Your task to perform on an android device: Do I have any events today? Image 0: 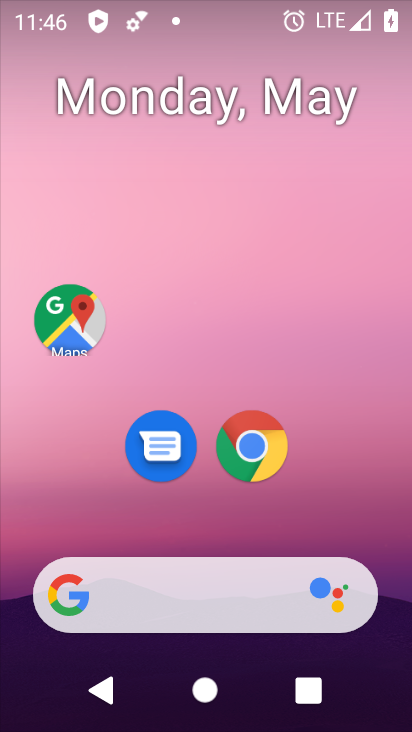
Step 0: drag from (337, 510) to (278, 59)
Your task to perform on an android device: Do I have any events today? Image 1: 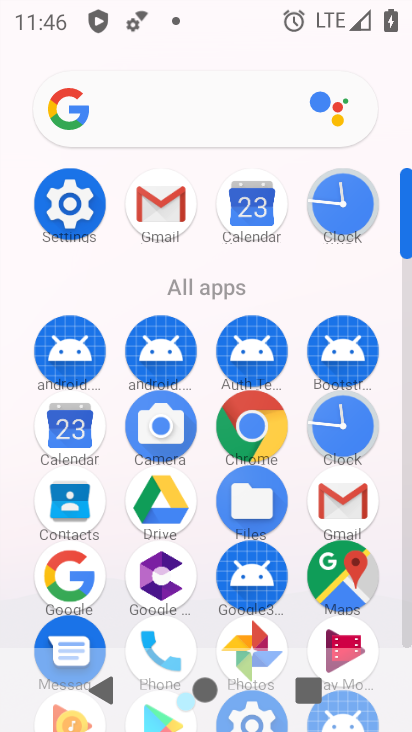
Step 1: click (75, 414)
Your task to perform on an android device: Do I have any events today? Image 2: 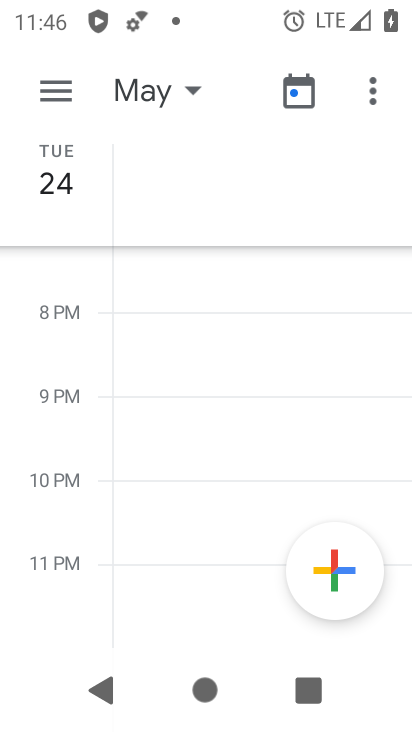
Step 2: click (178, 92)
Your task to perform on an android device: Do I have any events today? Image 3: 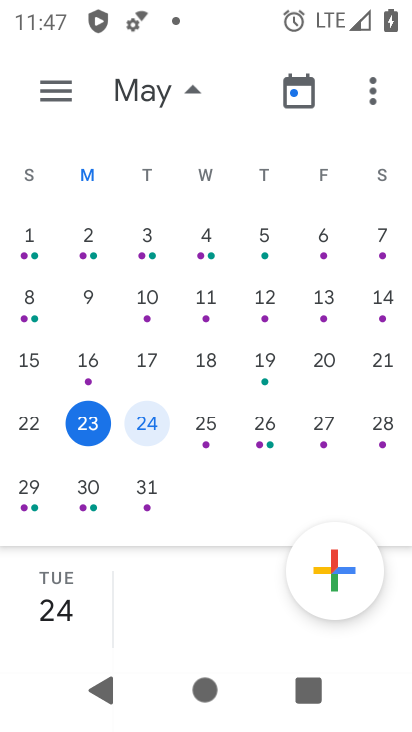
Step 3: click (90, 421)
Your task to perform on an android device: Do I have any events today? Image 4: 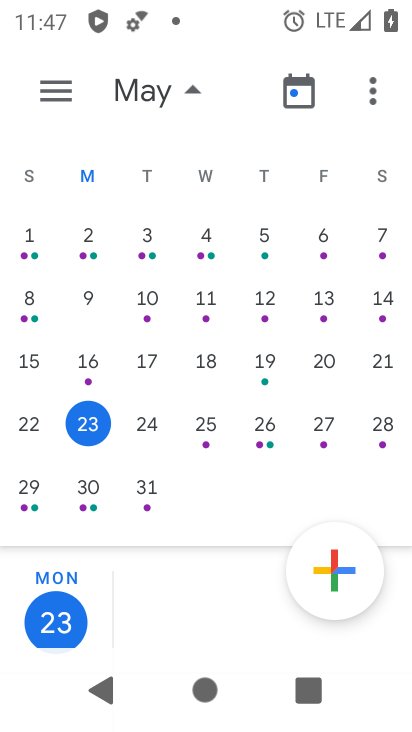
Step 4: task complete